Your task to perform on an android device: Open Google Chrome and click the shortcut for Amazon.com Image 0: 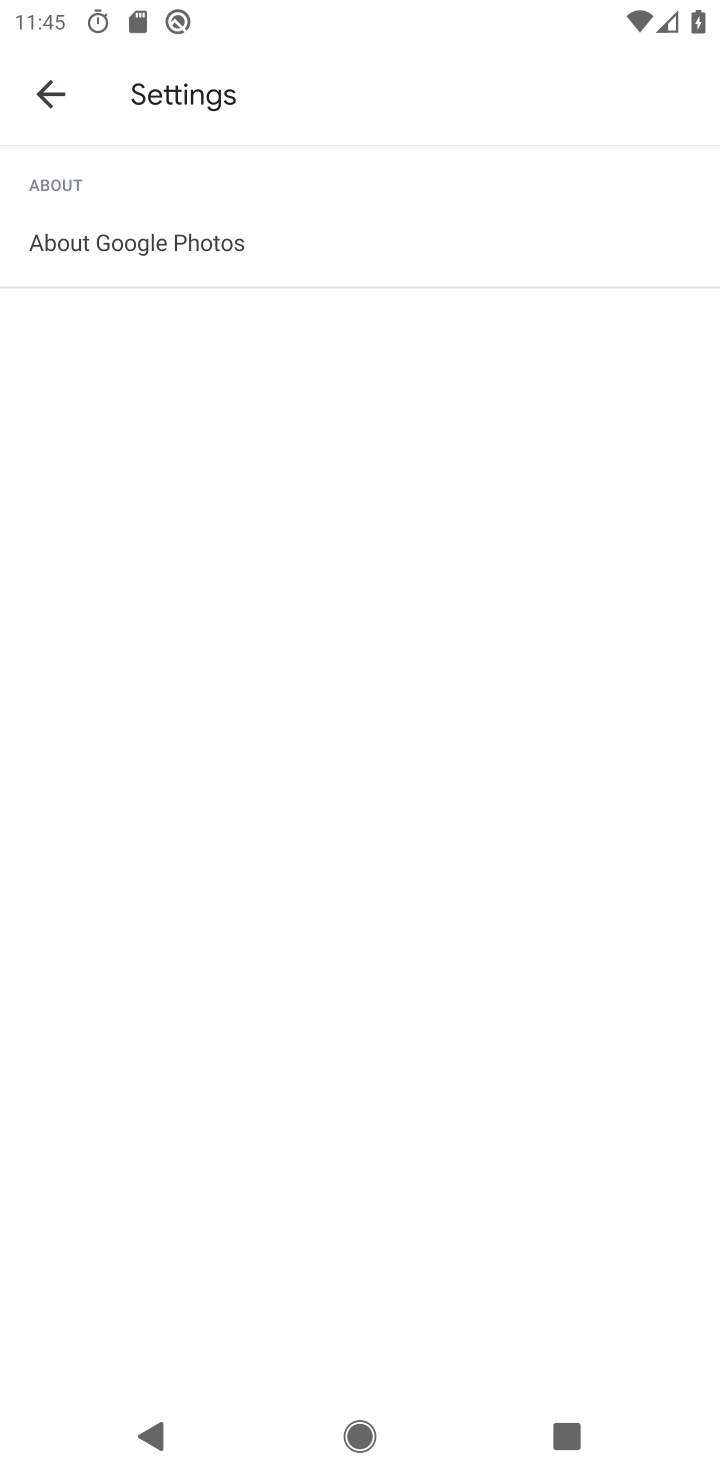
Step 0: press home button
Your task to perform on an android device: Open Google Chrome and click the shortcut for Amazon.com Image 1: 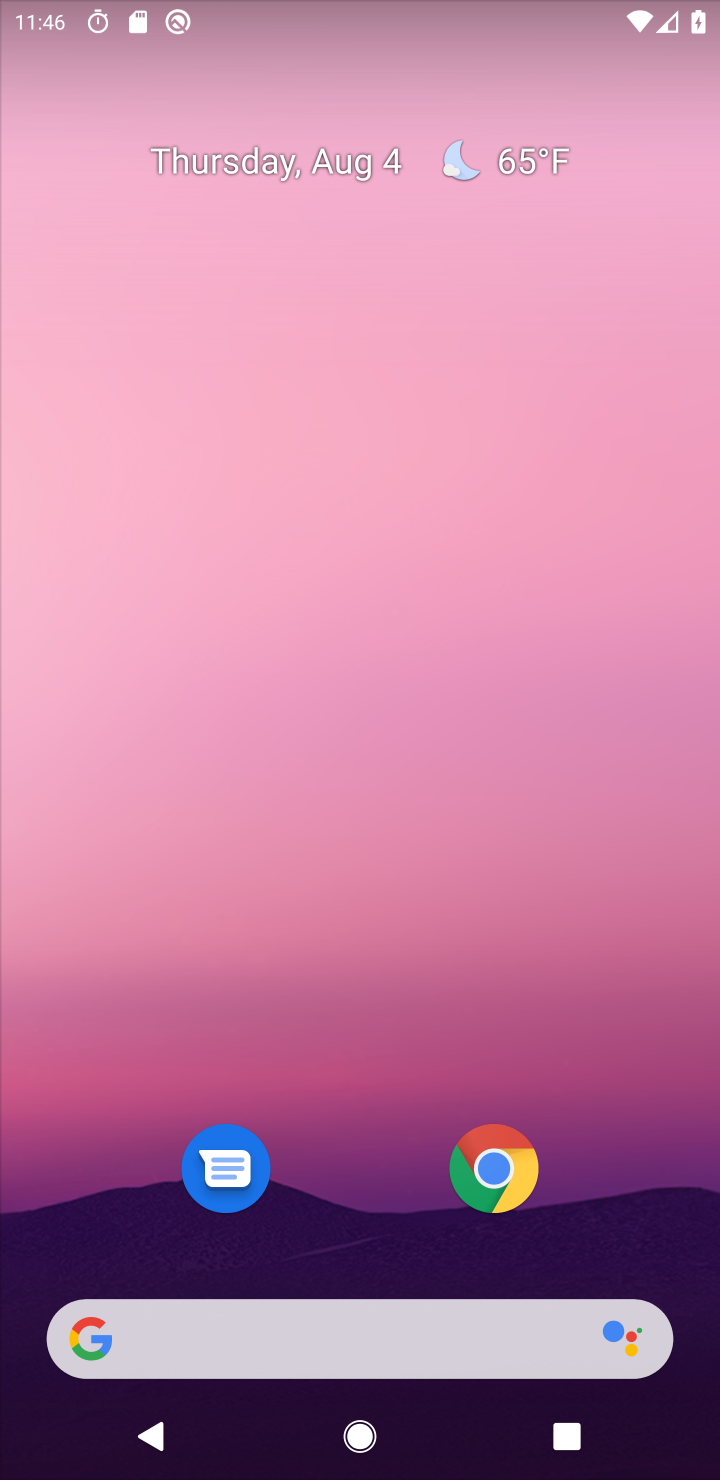
Step 1: click (524, 1193)
Your task to perform on an android device: Open Google Chrome and click the shortcut for Amazon.com Image 2: 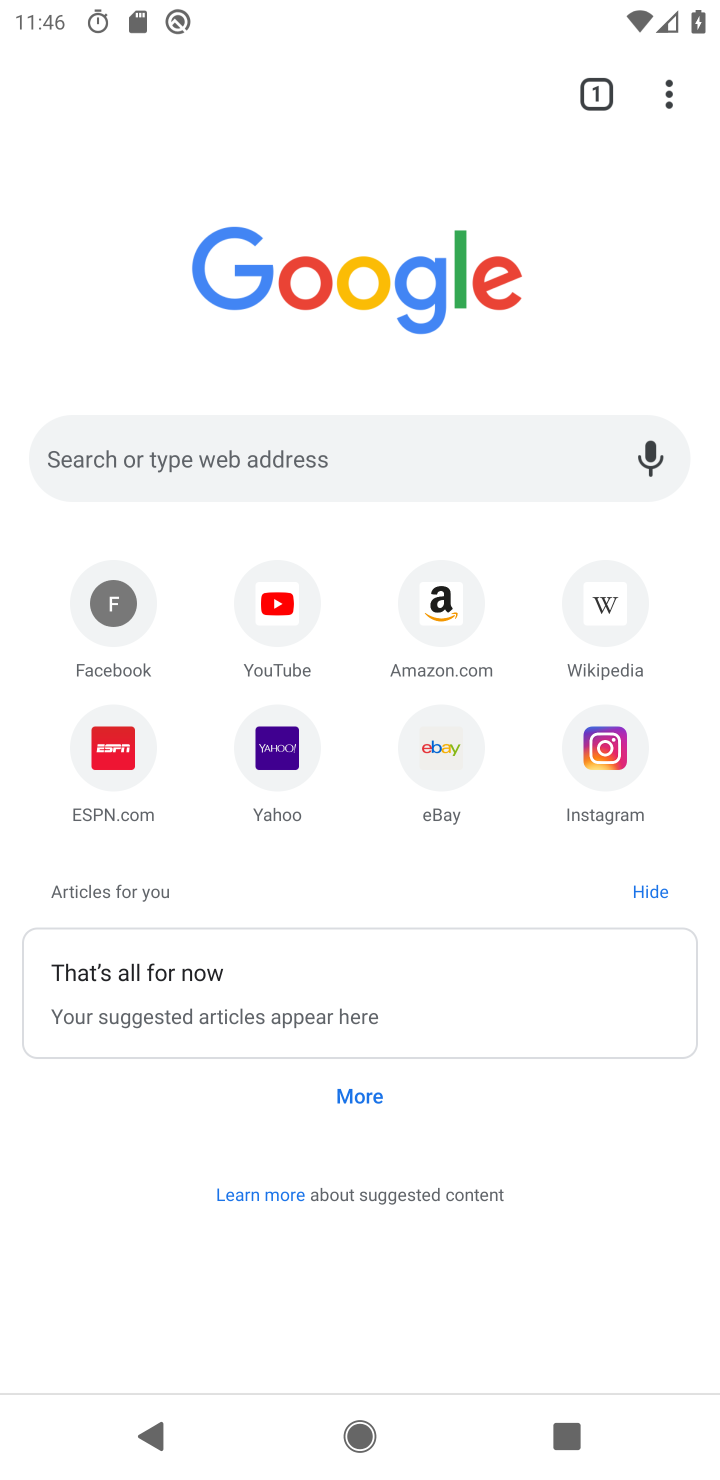
Step 2: click (453, 623)
Your task to perform on an android device: Open Google Chrome and click the shortcut for Amazon.com Image 3: 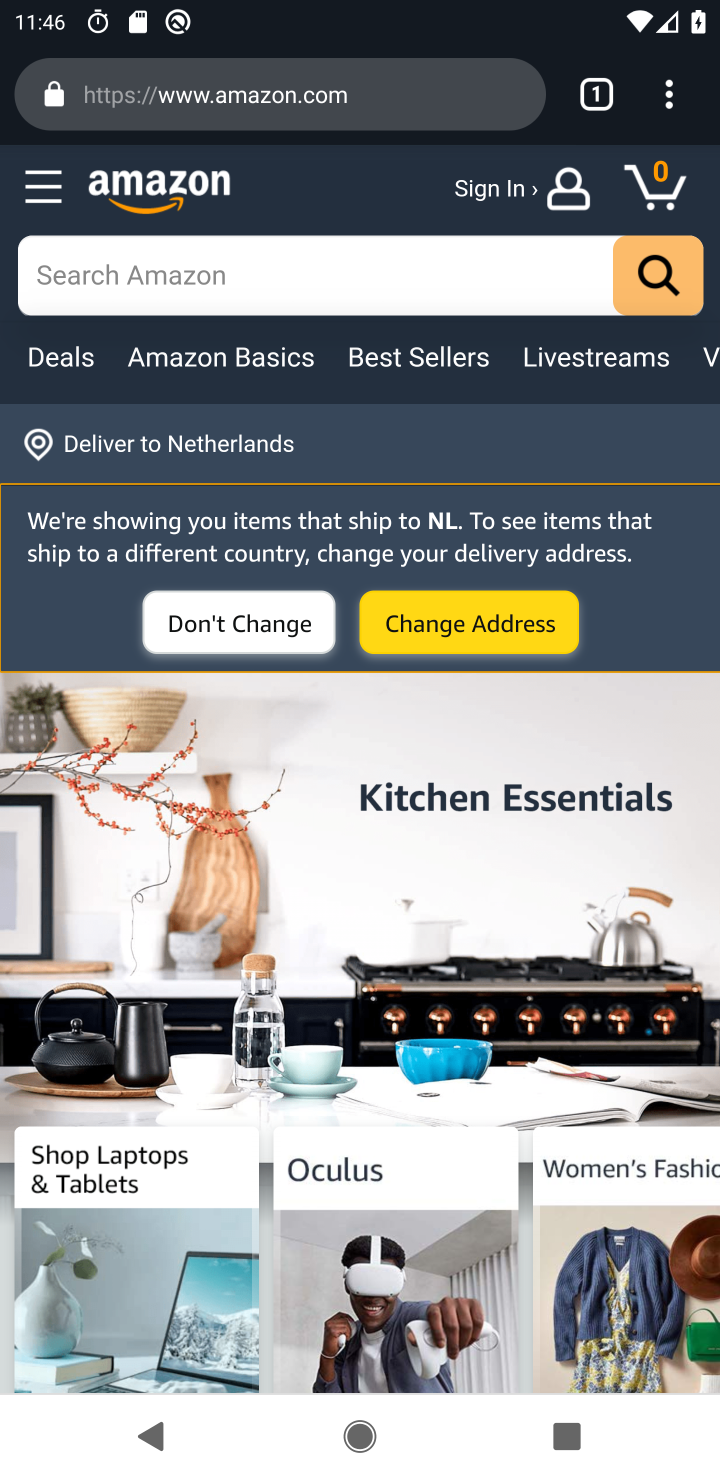
Step 3: task complete